Your task to perform on an android device: Go to calendar. Show me events next week Image 0: 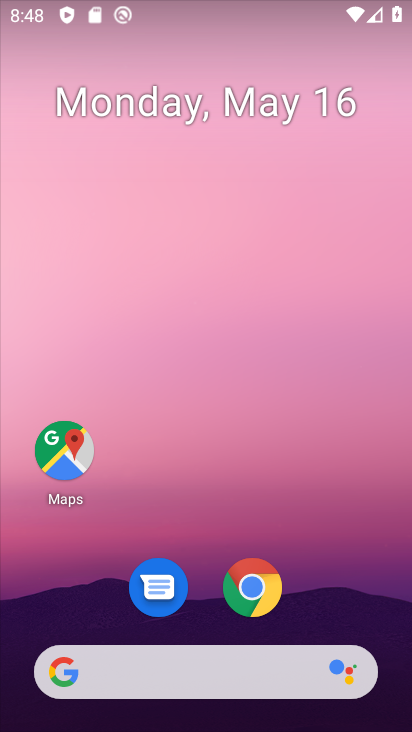
Step 0: drag from (319, 588) to (304, 284)
Your task to perform on an android device: Go to calendar. Show me events next week Image 1: 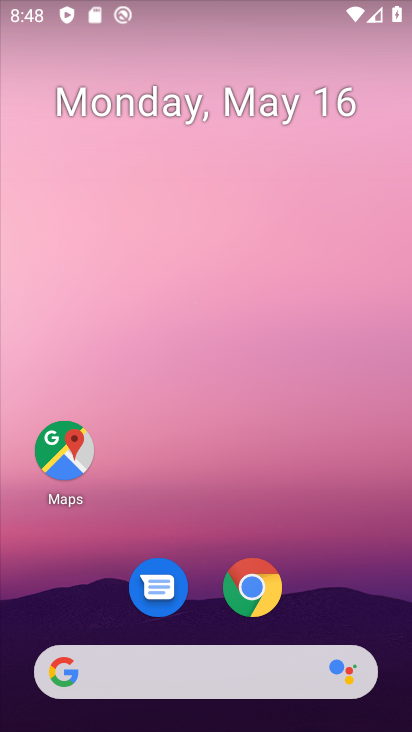
Step 1: drag from (331, 614) to (295, 122)
Your task to perform on an android device: Go to calendar. Show me events next week Image 2: 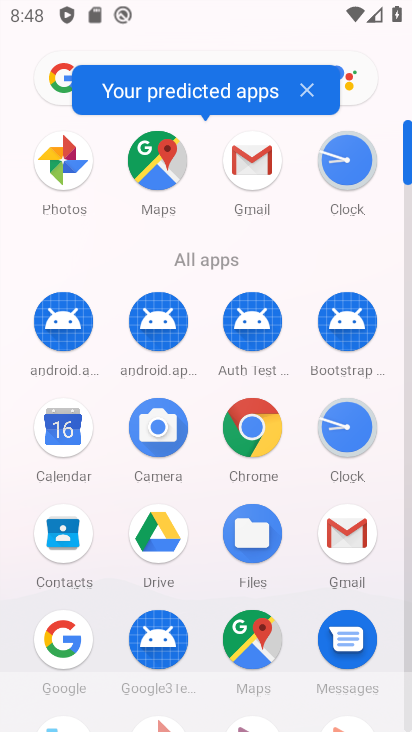
Step 2: click (52, 435)
Your task to perform on an android device: Go to calendar. Show me events next week Image 3: 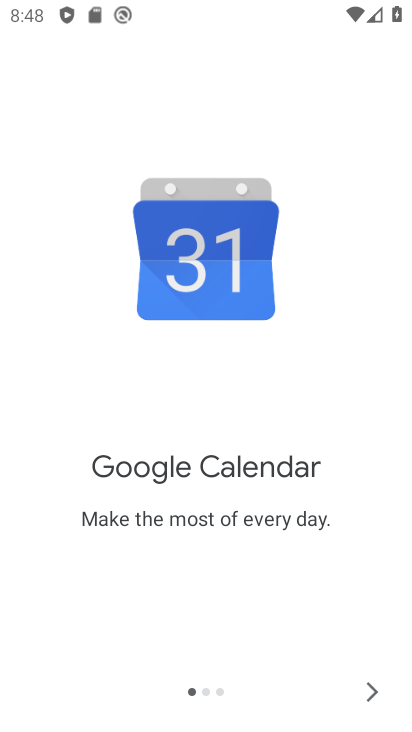
Step 3: click (361, 709)
Your task to perform on an android device: Go to calendar. Show me events next week Image 4: 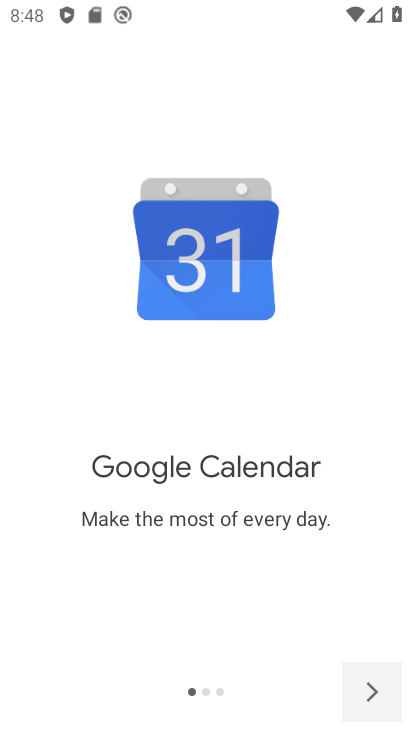
Step 4: click (361, 709)
Your task to perform on an android device: Go to calendar. Show me events next week Image 5: 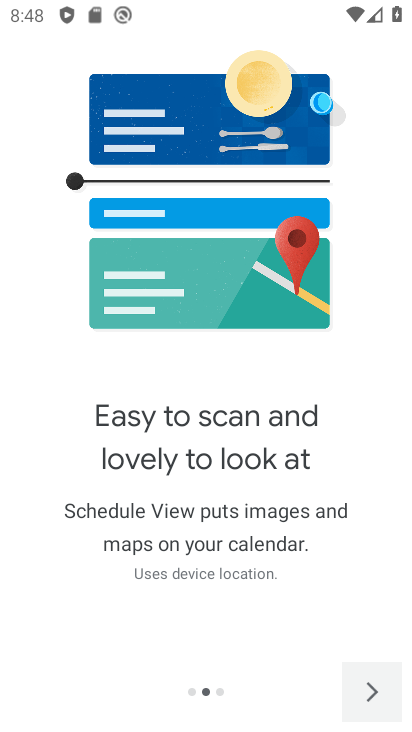
Step 5: click (361, 709)
Your task to perform on an android device: Go to calendar. Show me events next week Image 6: 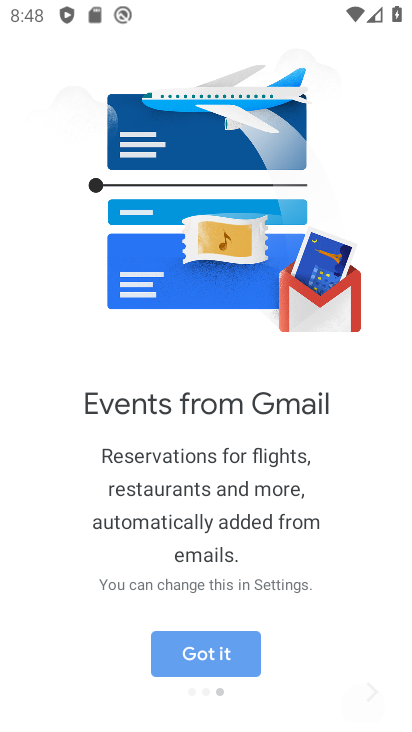
Step 6: click (361, 709)
Your task to perform on an android device: Go to calendar. Show me events next week Image 7: 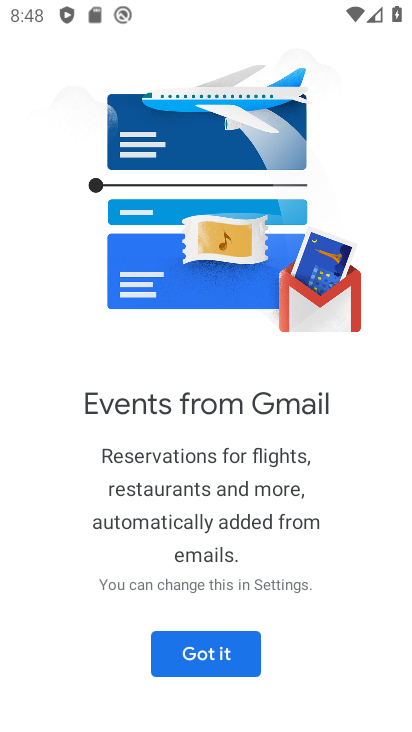
Step 7: click (361, 709)
Your task to perform on an android device: Go to calendar. Show me events next week Image 8: 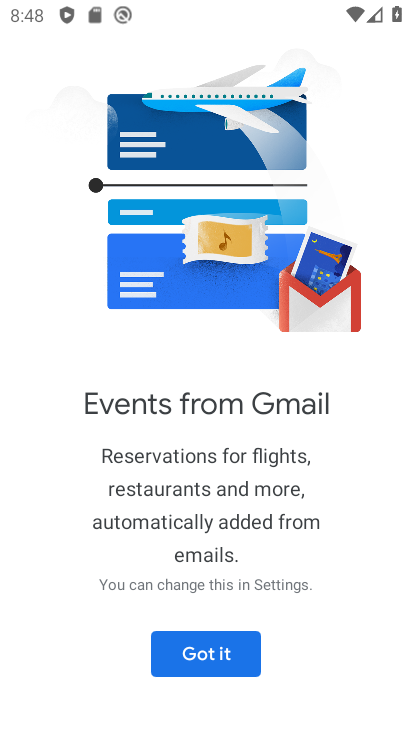
Step 8: click (217, 657)
Your task to perform on an android device: Go to calendar. Show me events next week Image 9: 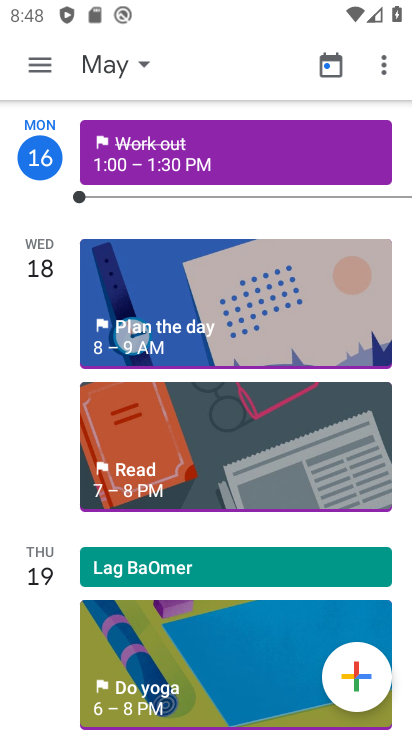
Step 9: click (32, 71)
Your task to perform on an android device: Go to calendar. Show me events next week Image 10: 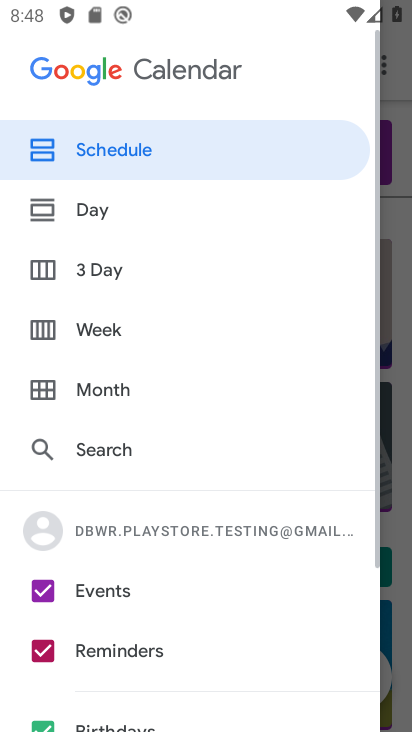
Step 10: click (121, 343)
Your task to perform on an android device: Go to calendar. Show me events next week Image 11: 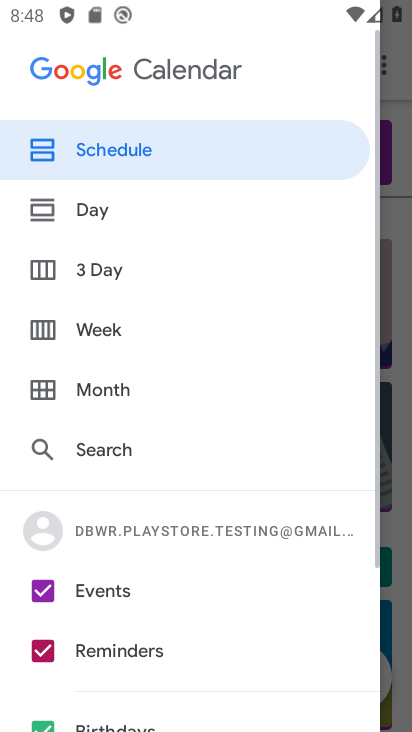
Step 11: drag from (166, 628) to (153, 166)
Your task to perform on an android device: Go to calendar. Show me events next week Image 12: 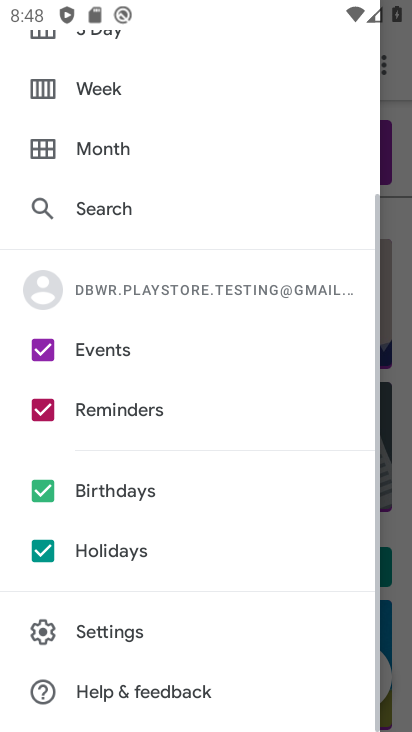
Step 12: click (51, 554)
Your task to perform on an android device: Go to calendar. Show me events next week Image 13: 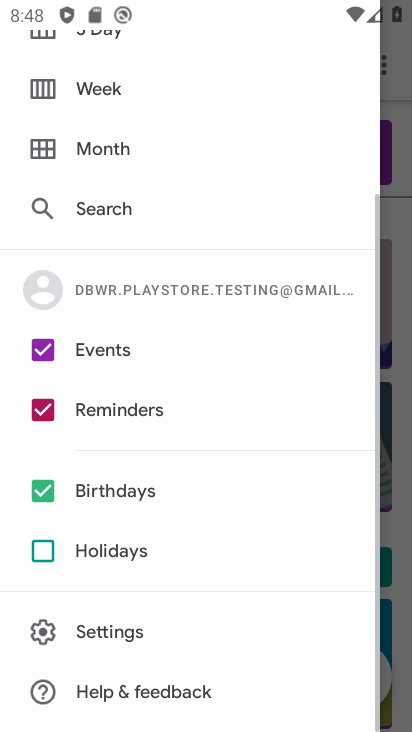
Step 13: click (40, 487)
Your task to perform on an android device: Go to calendar. Show me events next week Image 14: 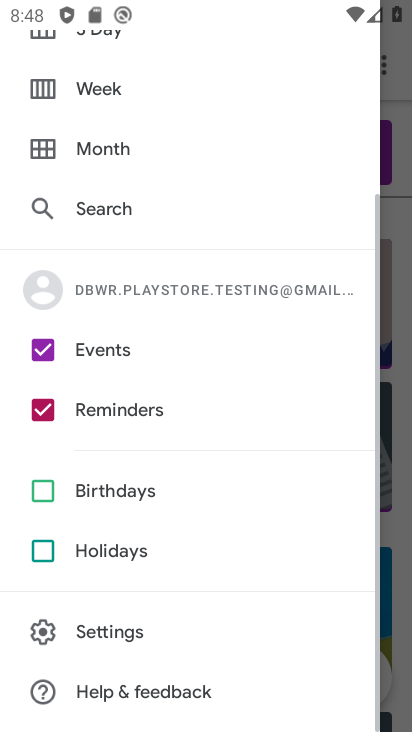
Step 14: click (33, 411)
Your task to perform on an android device: Go to calendar. Show me events next week Image 15: 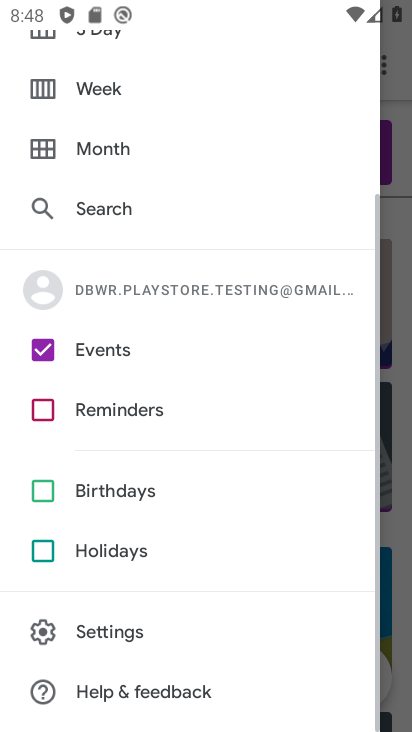
Step 15: click (111, 85)
Your task to perform on an android device: Go to calendar. Show me events next week Image 16: 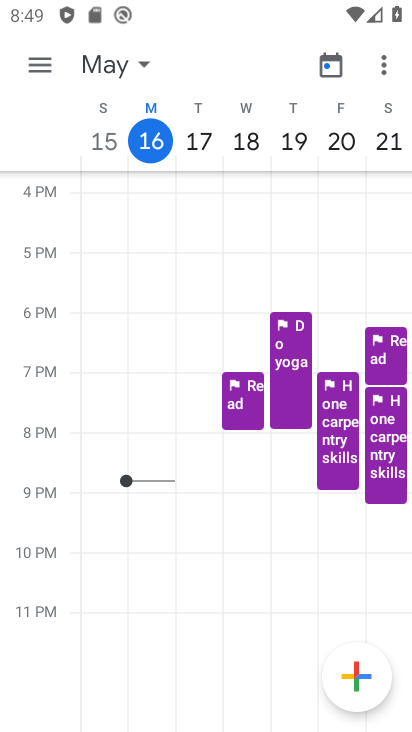
Step 16: click (138, 66)
Your task to perform on an android device: Go to calendar. Show me events next week Image 17: 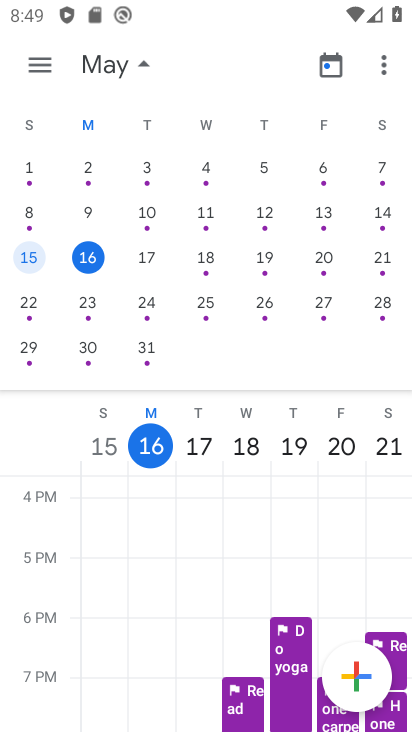
Step 17: click (144, 312)
Your task to perform on an android device: Go to calendar. Show me events next week Image 18: 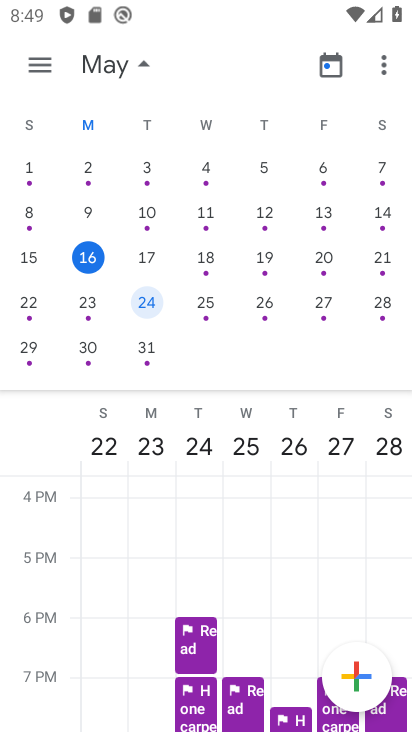
Step 18: click (141, 64)
Your task to perform on an android device: Go to calendar. Show me events next week Image 19: 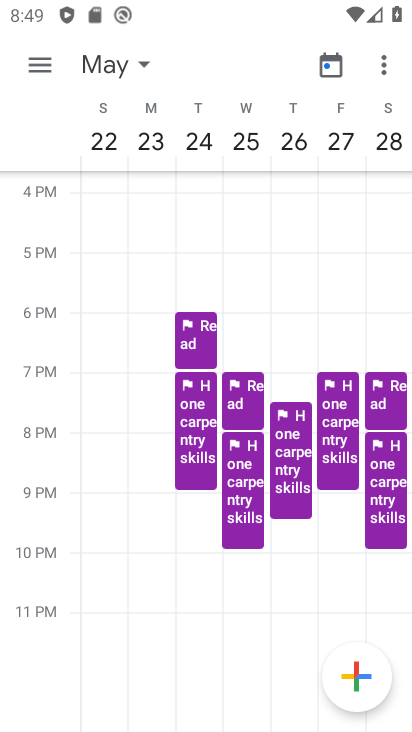
Step 19: task complete